Your task to perform on an android device: turn on wifi Image 0: 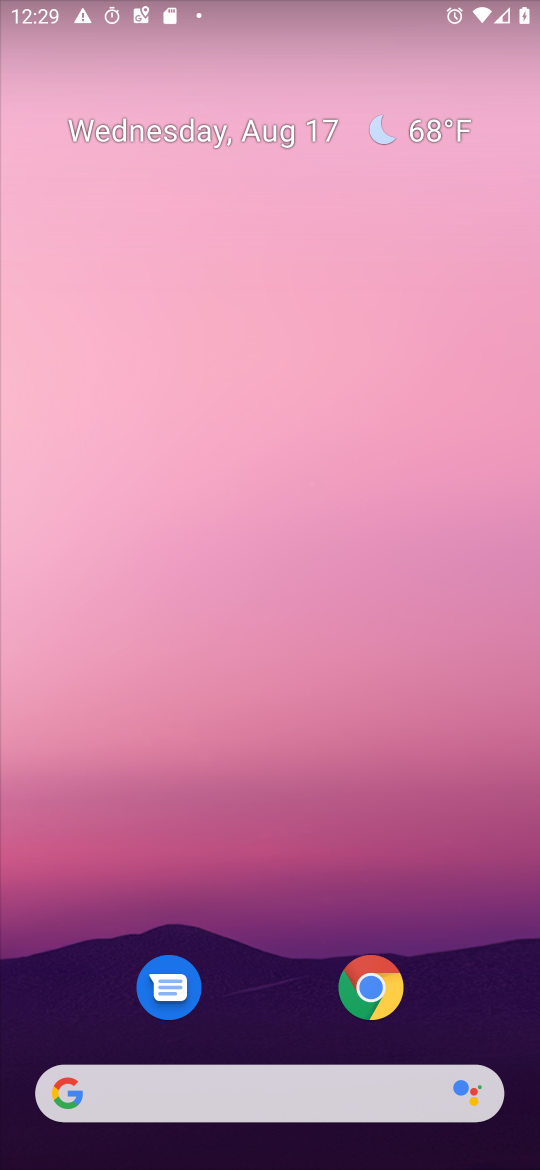
Step 0: drag from (18, 1123) to (163, 502)
Your task to perform on an android device: turn on wifi Image 1: 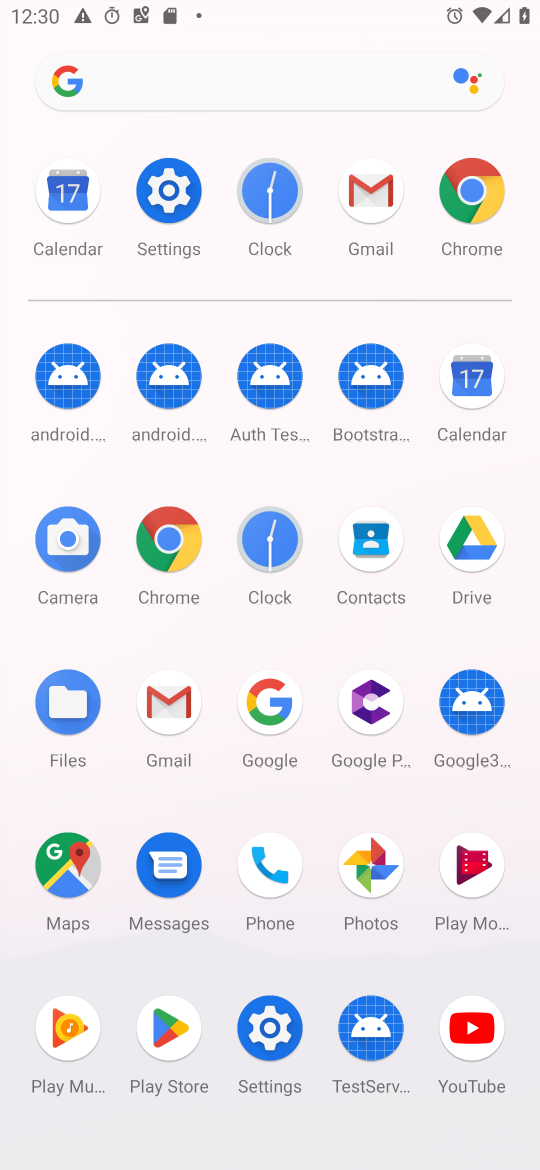
Step 1: click (257, 1037)
Your task to perform on an android device: turn on wifi Image 2: 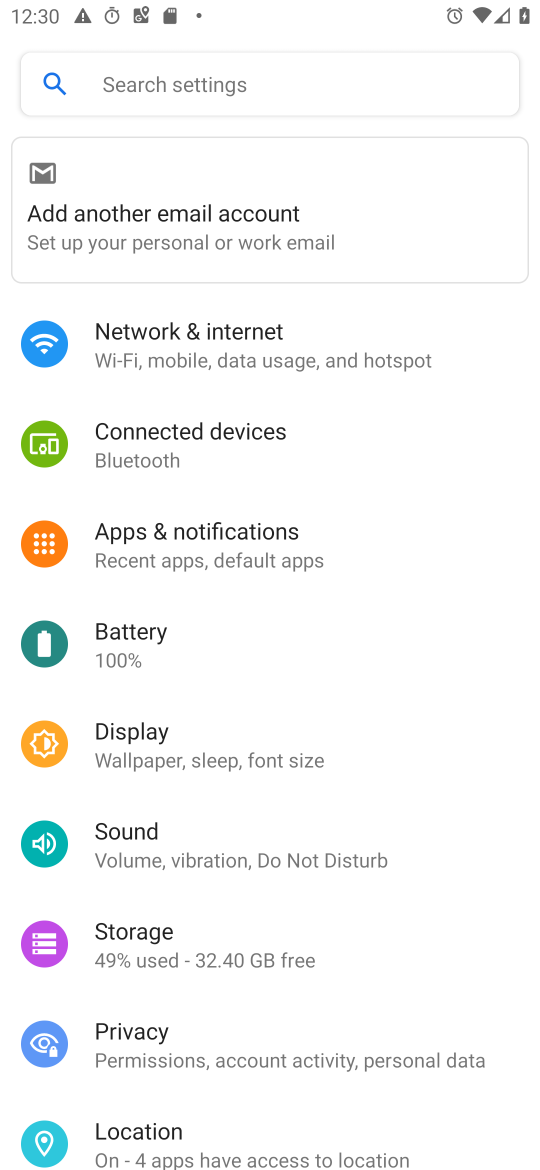
Step 2: click (238, 360)
Your task to perform on an android device: turn on wifi Image 3: 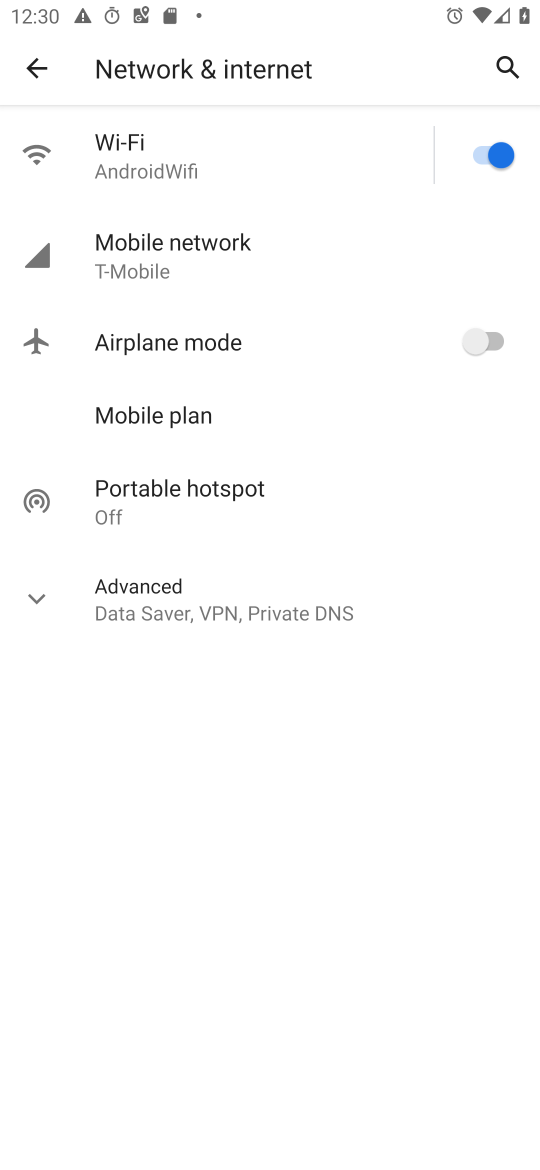
Step 3: task complete